Your task to perform on an android device: check storage Image 0: 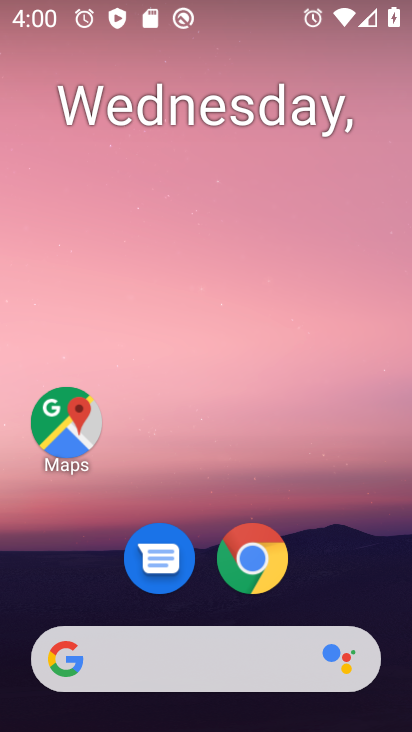
Step 0: drag from (221, 576) to (210, 215)
Your task to perform on an android device: check storage Image 1: 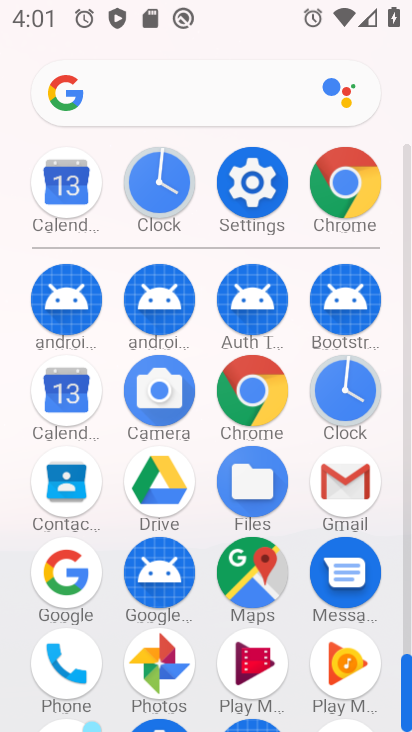
Step 1: click (256, 193)
Your task to perform on an android device: check storage Image 2: 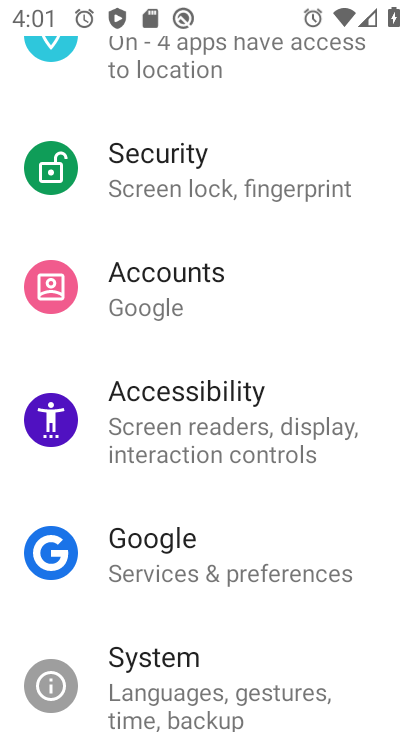
Step 2: drag from (198, 103) to (239, 510)
Your task to perform on an android device: check storage Image 3: 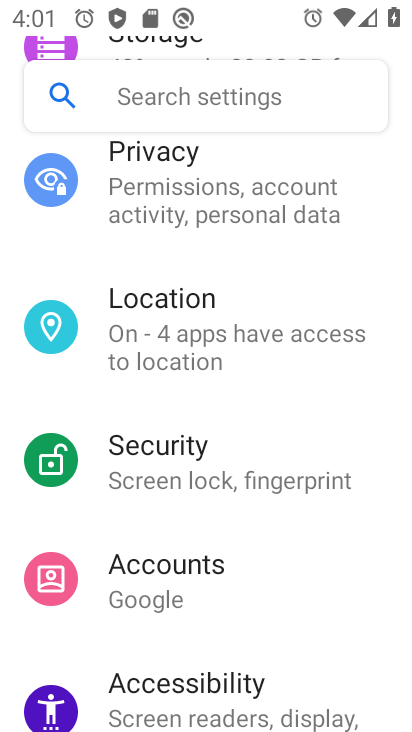
Step 3: drag from (172, 188) to (215, 525)
Your task to perform on an android device: check storage Image 4: 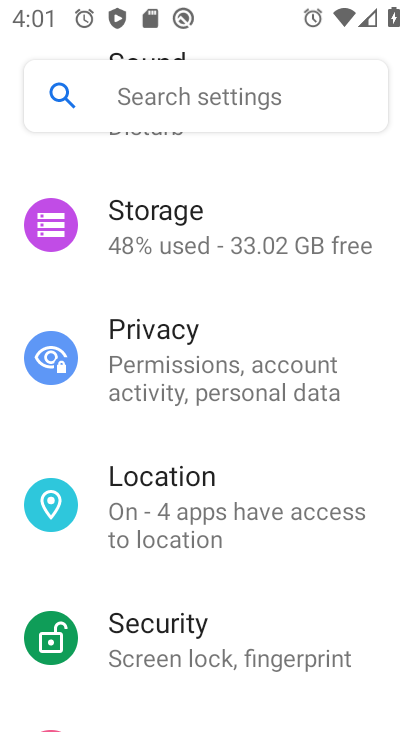
Step 4: click (159, 216)
Your task to perform on an android device: check storage Image 5: 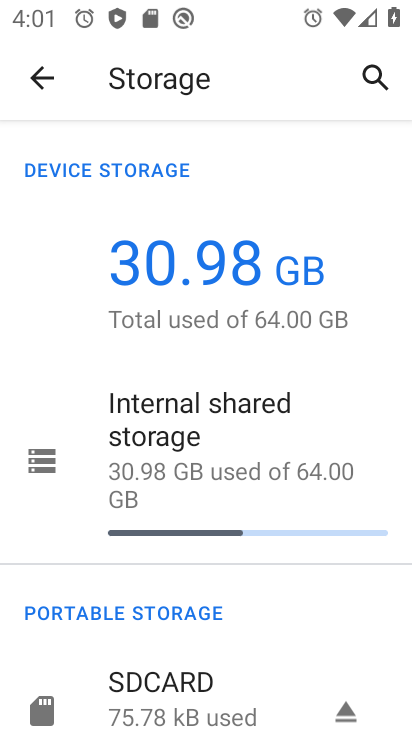
Step 5: task complete